Your task to perform on an android device: Is it going to rain this weekend? Image 0: 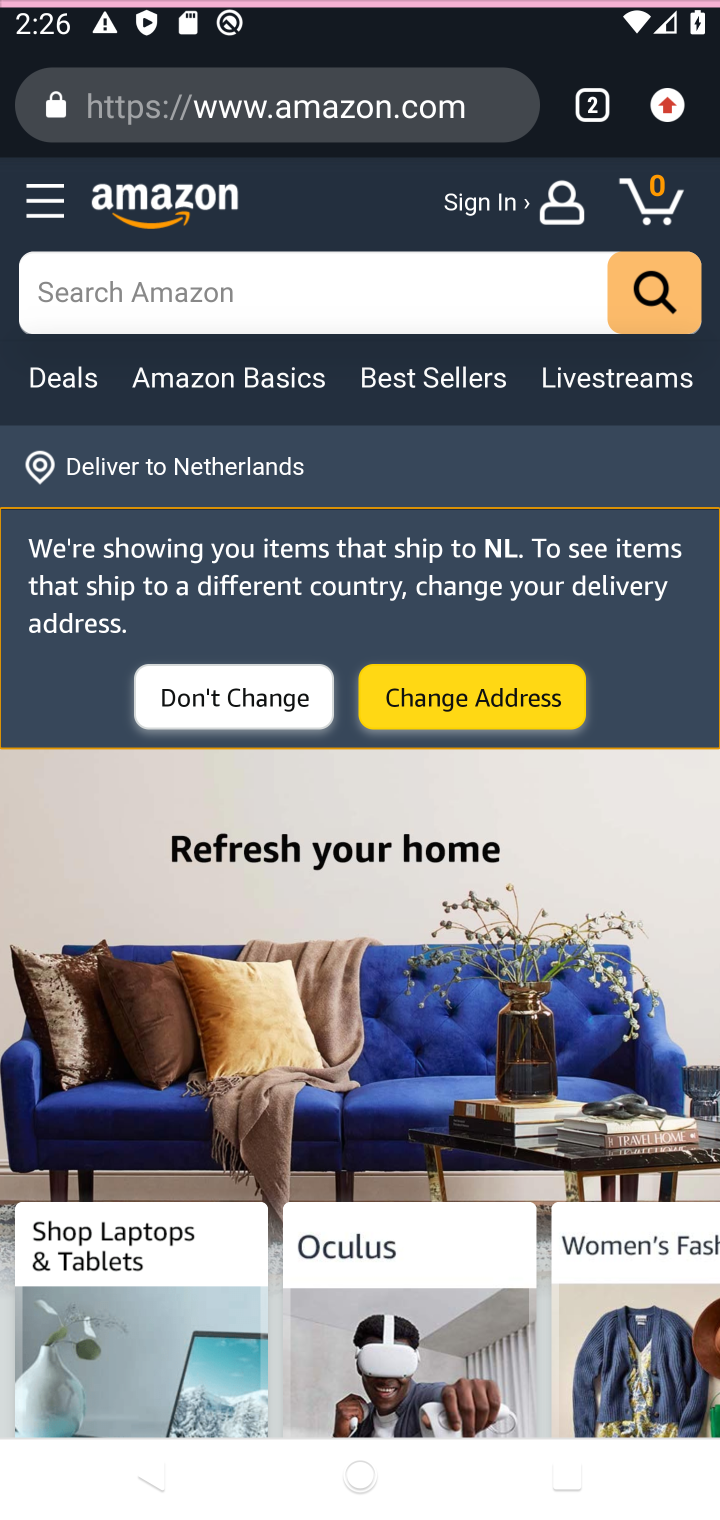
Step 0: press back button
Your task to perform on an android device: Is it going to rain this weekend? Image 1: 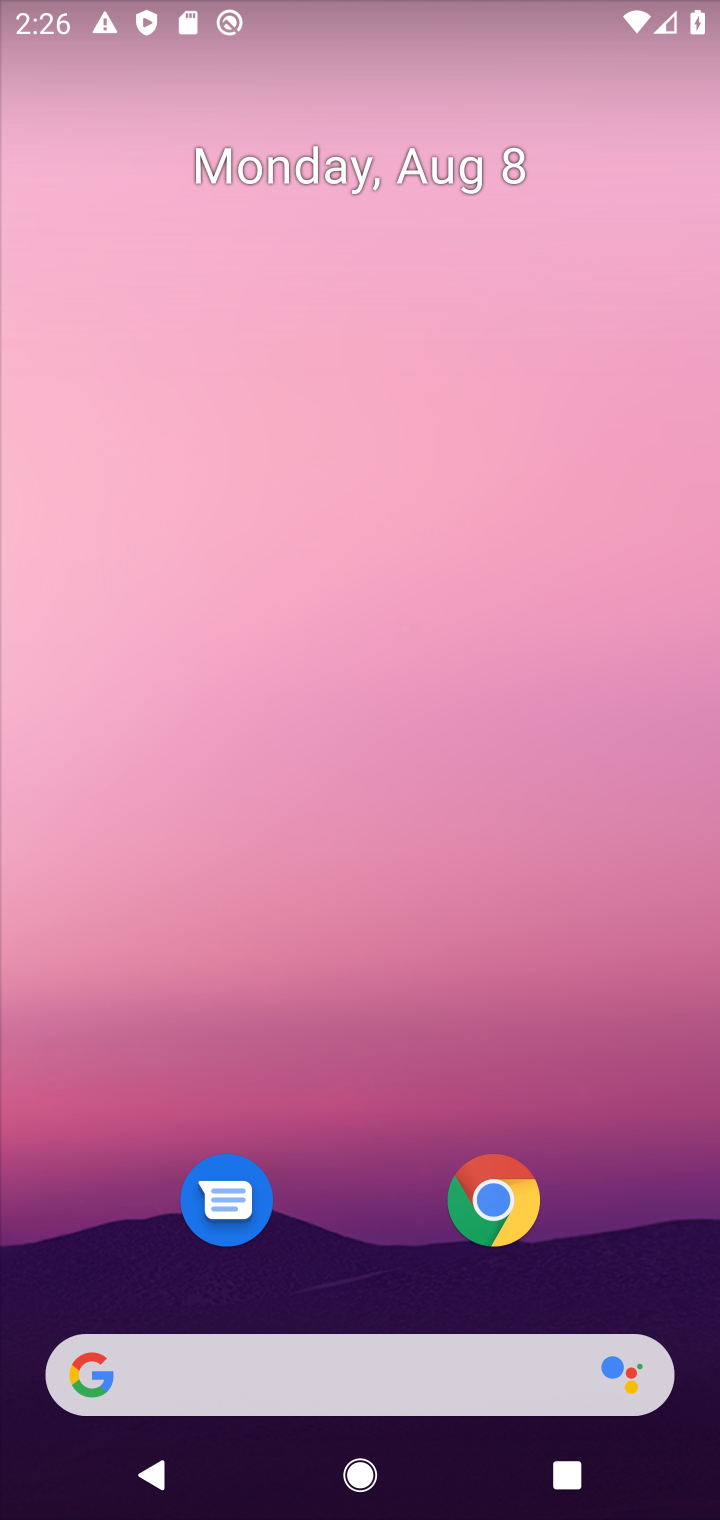
Step 1: drag from (348, 939) to (541, 36)
Your task to perform on an android device: Is it going to rain this weekend? Image 2: 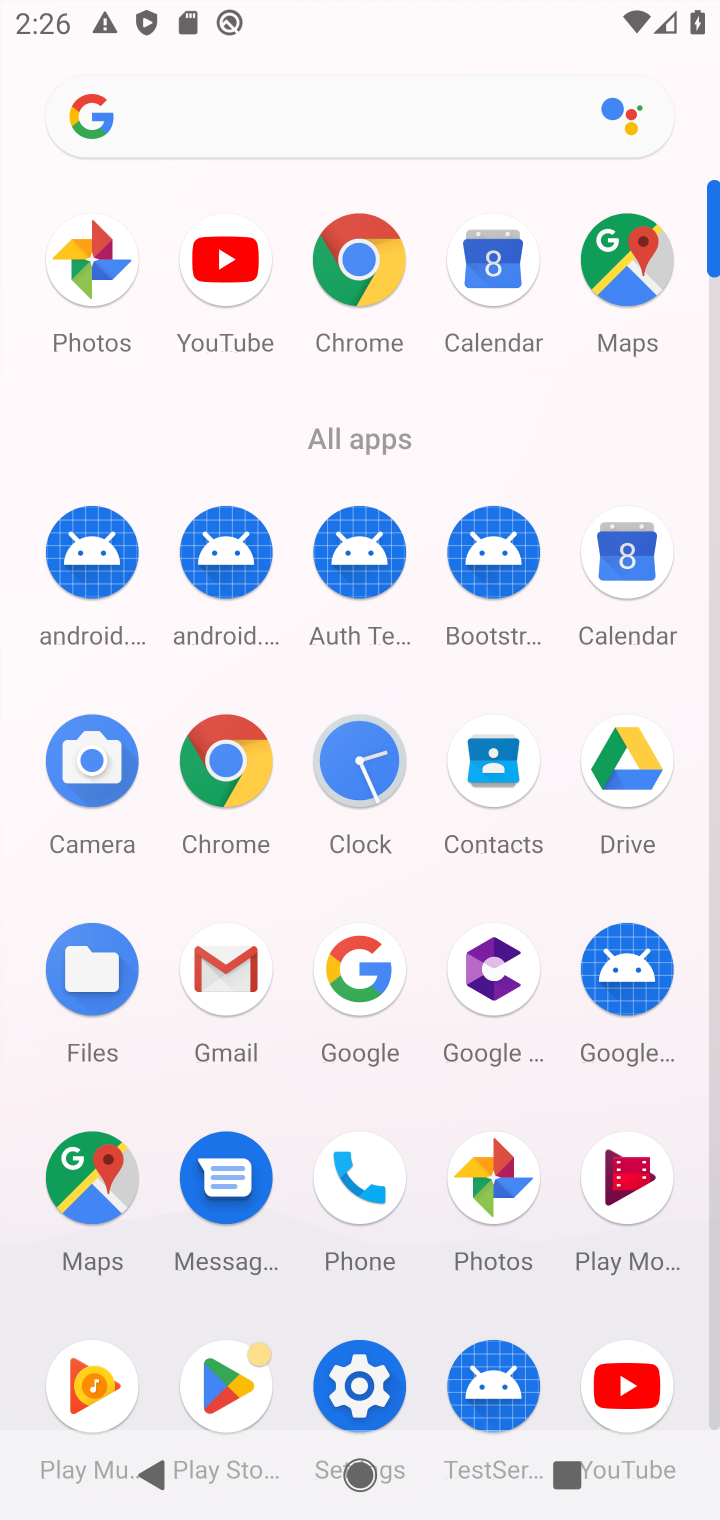
Step 2: click (291, 104)
Your task to perform on an android device: Is it going to rain this weekend? Image 3: 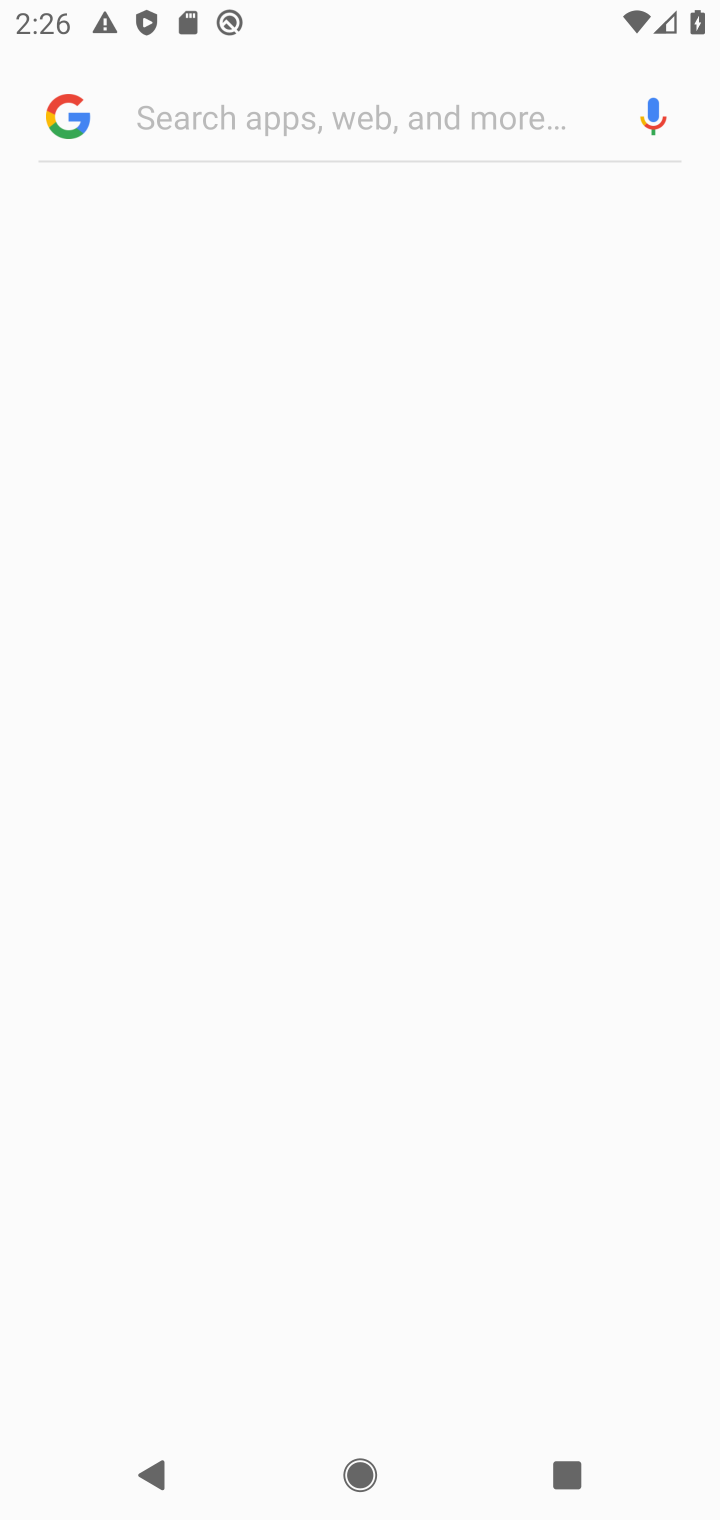
Step 3: click (281, 135)
Your task to perform on an android device: Is it going to rain this weekend? Image 4: 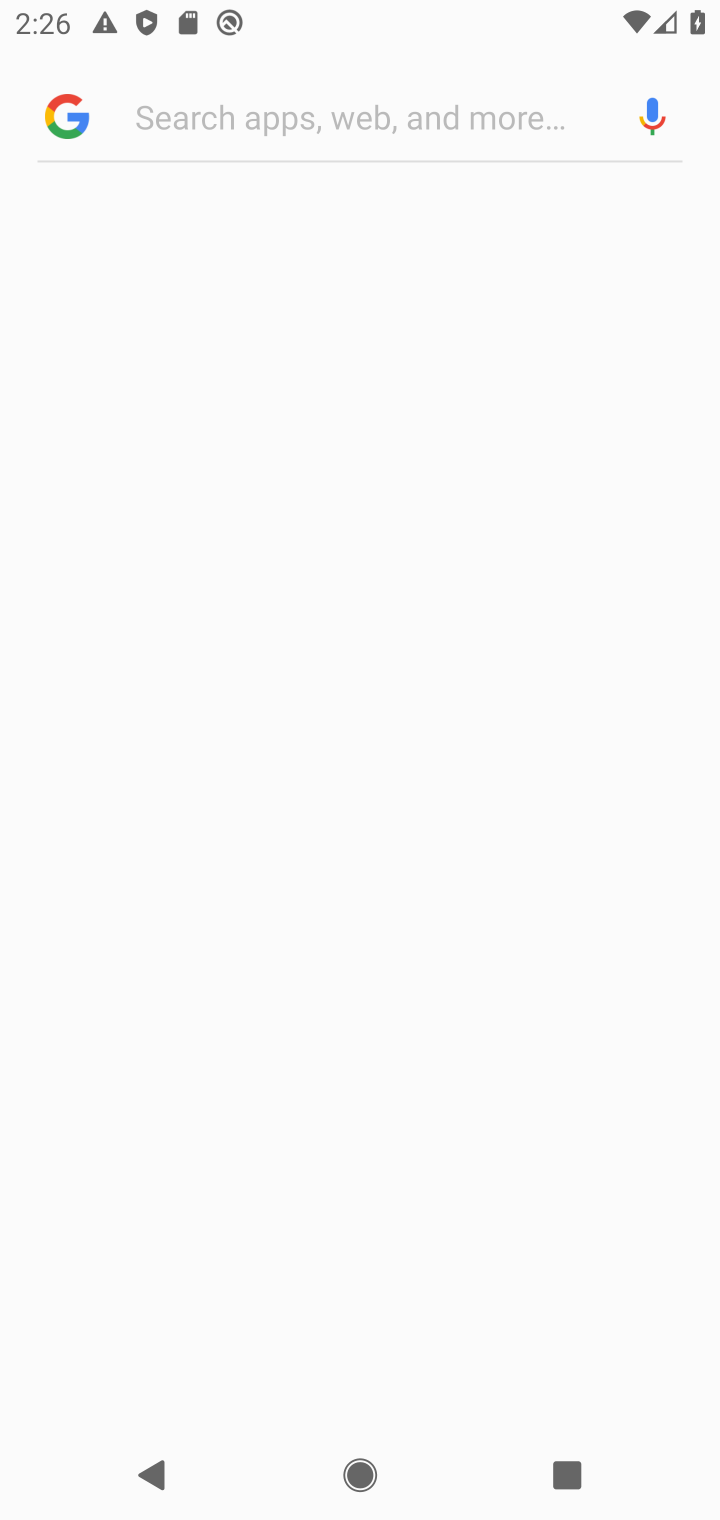
Step 4: click (281, 126)
Your task to perform on an android device: Is it going to rain this weekend? Image 5: 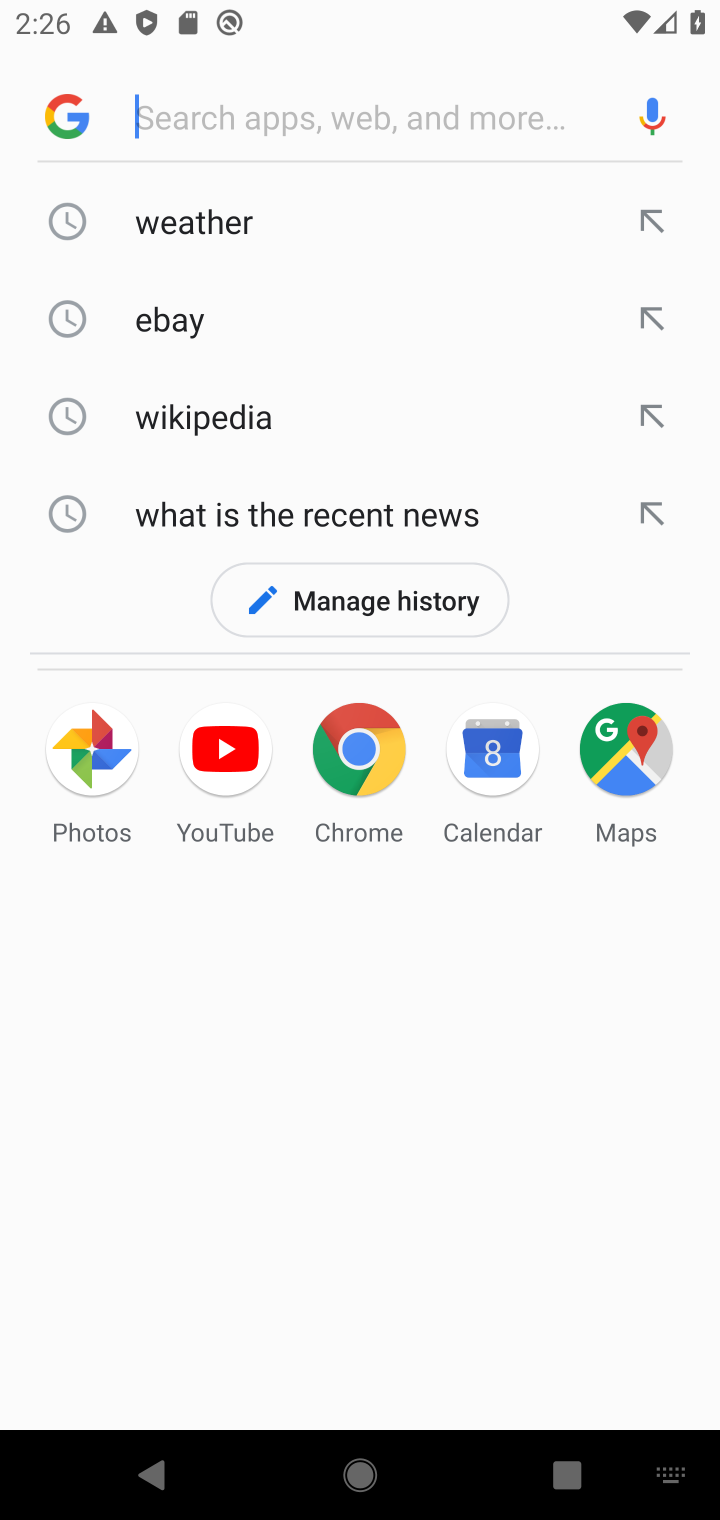
Step 5: click (238, 211)
Your task to perform on an android device: Is it going to rain this weekend? Image 6: 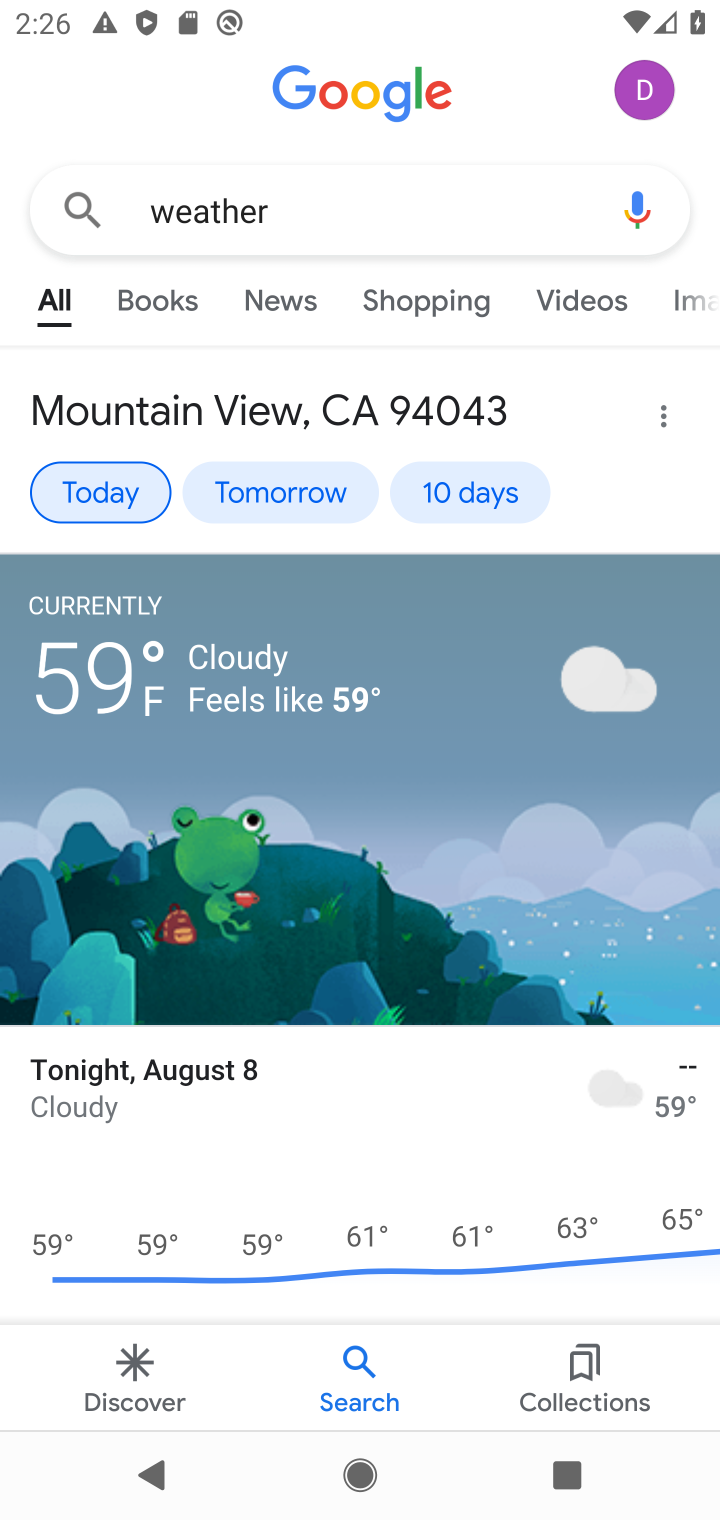
Step 6: click (450, 492)
Your task to perform on an android device: Is it going to rain this weekend? Image 7: 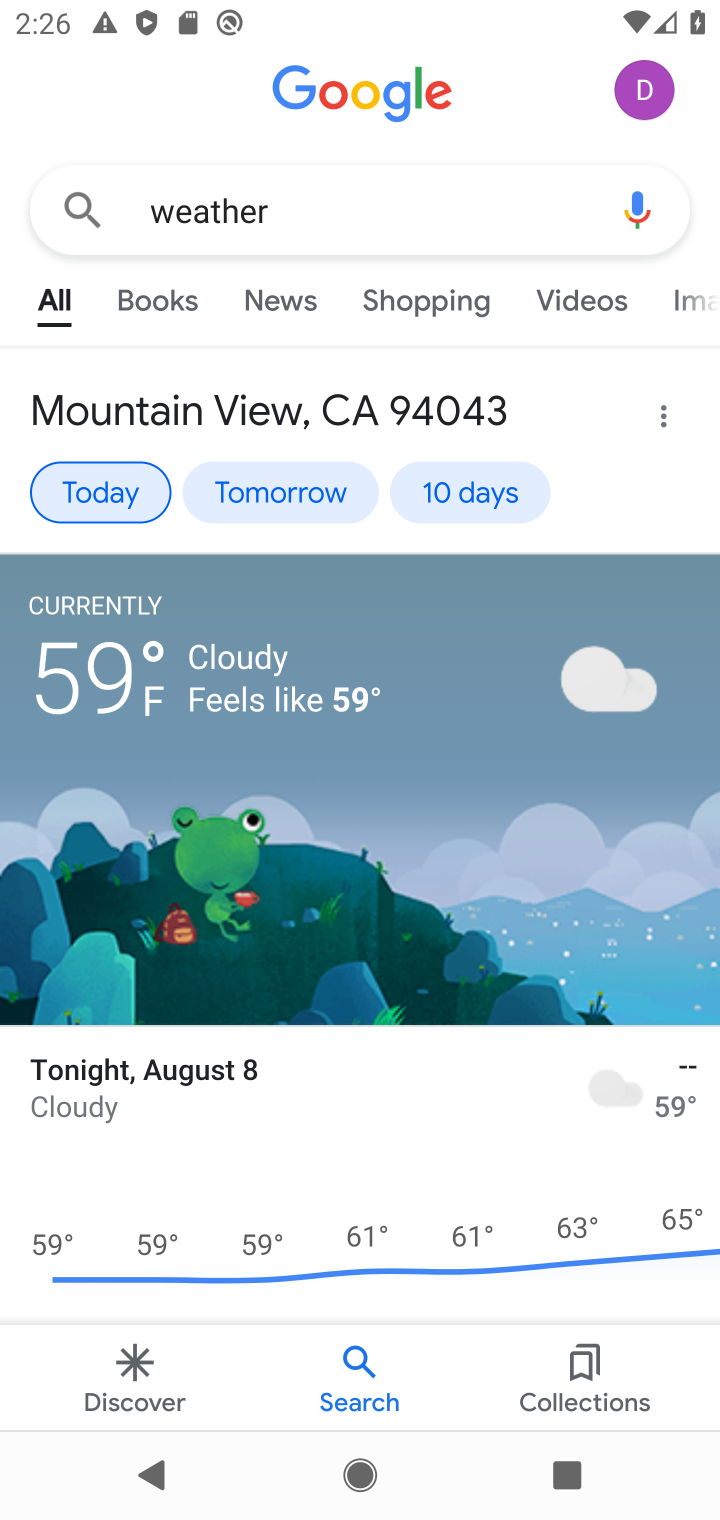
Step 7: click (469, 498)
Your task to perform on an android device: Is it going to rain this weekend? Image 8: 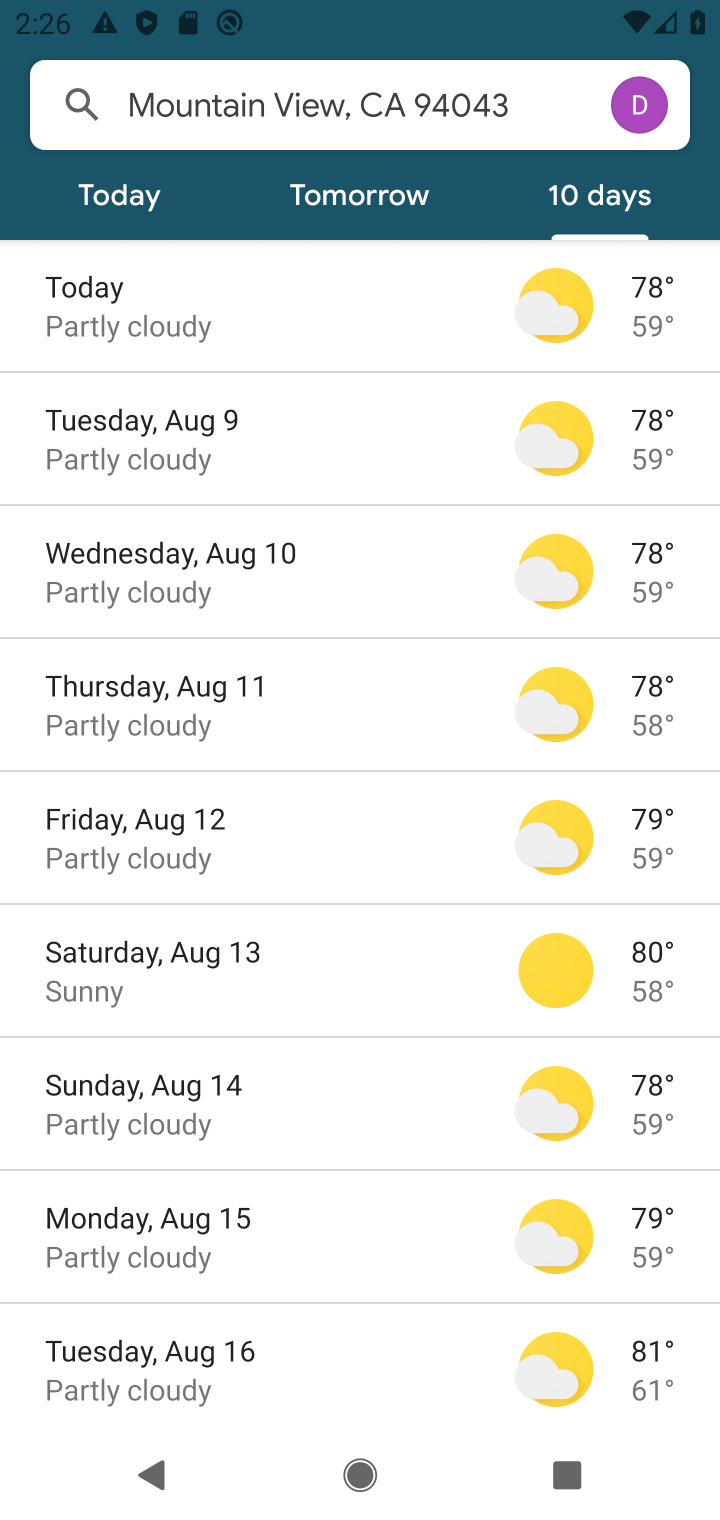
Step 8: task complete